Your task to perform on an android device: Go to Android settings Image 0: 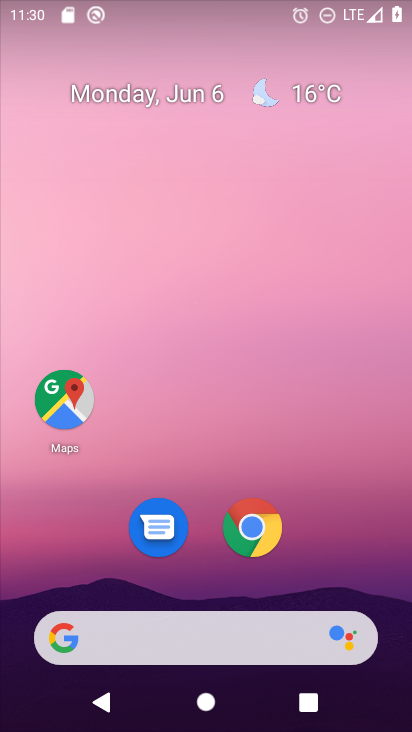
Step 0: drag from (362, 559) to (372, 119)
Your task to perform on an android device: Go to Android settings Image 1: 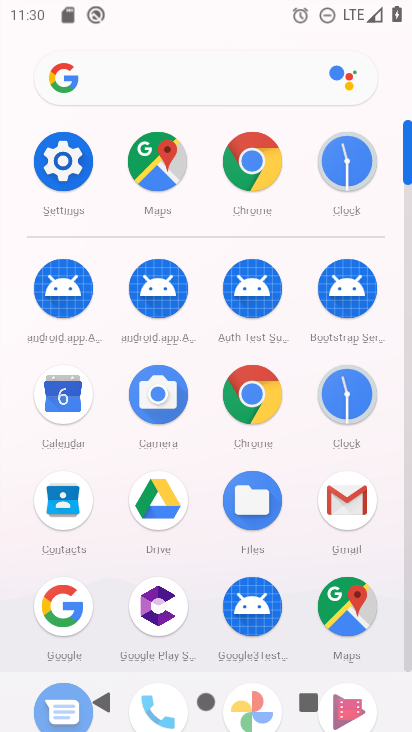
Step 1: click (63, 196)
Your task to perform on an android device: Go to Android settings Image 2: 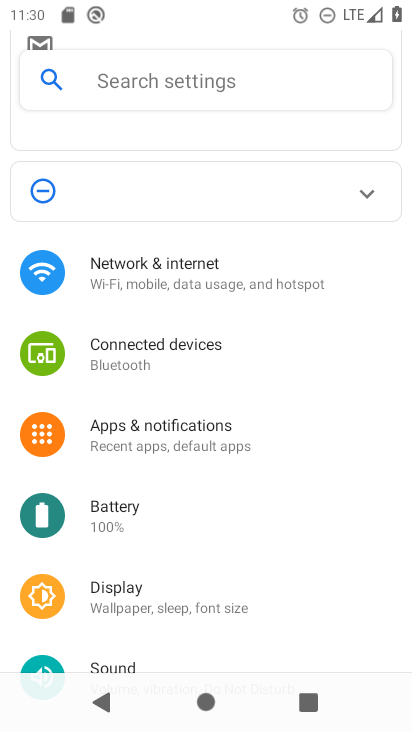
Step 2: drag from (293, 474) to (296, 290)
Your task to perform on an android device: Go to Android settings Image 3: 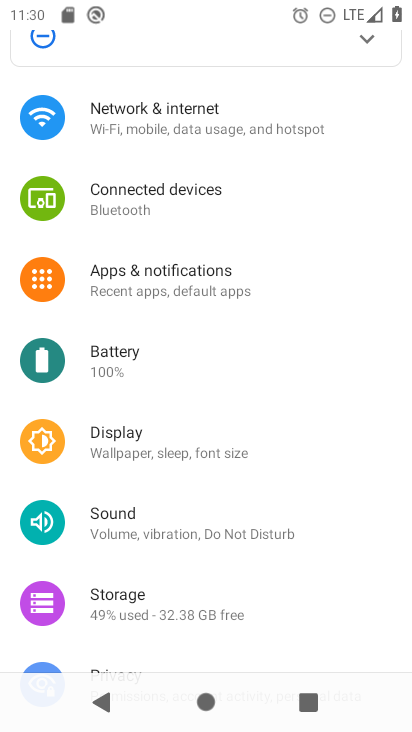
Step 3: drag from (313, 471) to (345, 288)
Your task to perform on an android device: Go to Android settings Image 4: 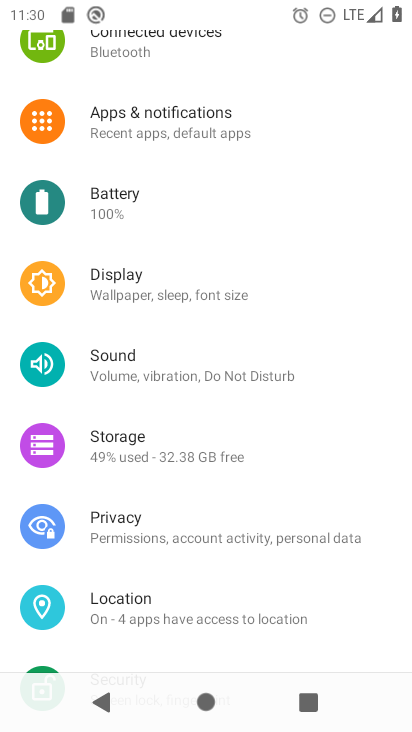
Step 4: drag from (343, 502) to (340, 326)
Your task to perform on an android device: Go to Android settings Image 5: 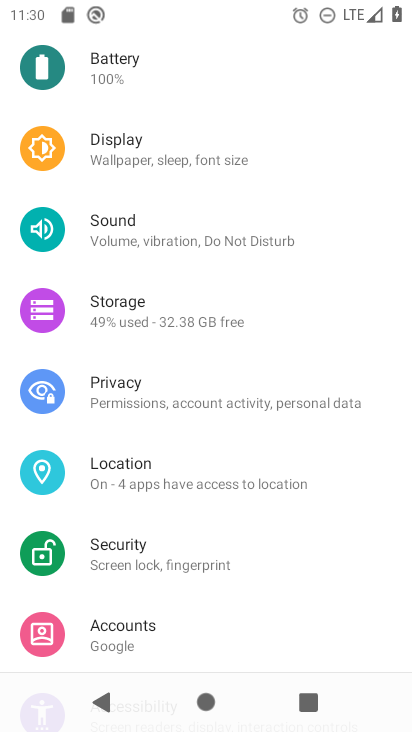
Step 5: drag from (332, 544) to (329, 365)
Your task to perform on an android device: Go to Android settings Image 6: 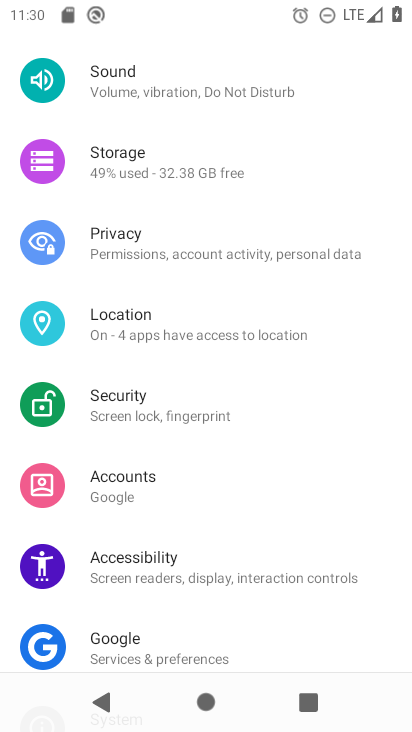
Step 6: drag from (318, 611) to (322, 403)
Your task to perform on an android device: Go to Android settings Image 7: 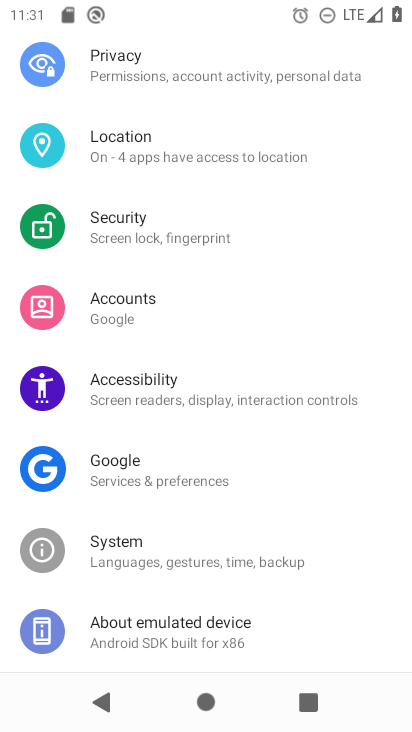
Step 7: drag from (316, 553) to (311, 347)
Your task to perform on an android device: Go to Android settings Image 8: 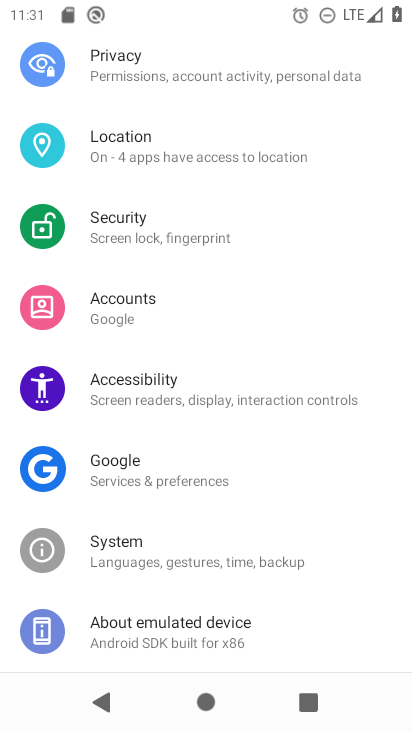
Step 8: click (216, 555)
Your task to perform on an android device: Go to Android settings Image 9: 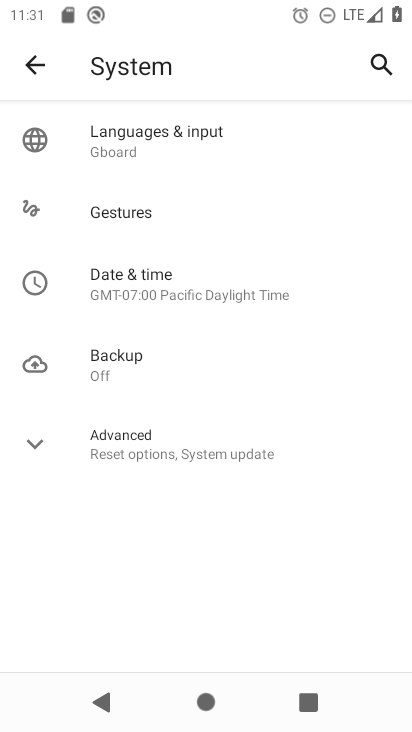
Step 9: click (225, 448)
Your task to perform on an android device: Go to Android settings Image 10: 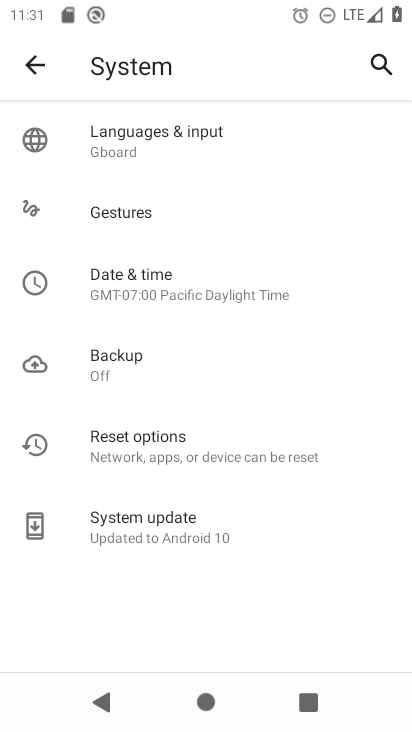
Step 10: task complete